Your task to perform on an android device: check google app version Image 0: 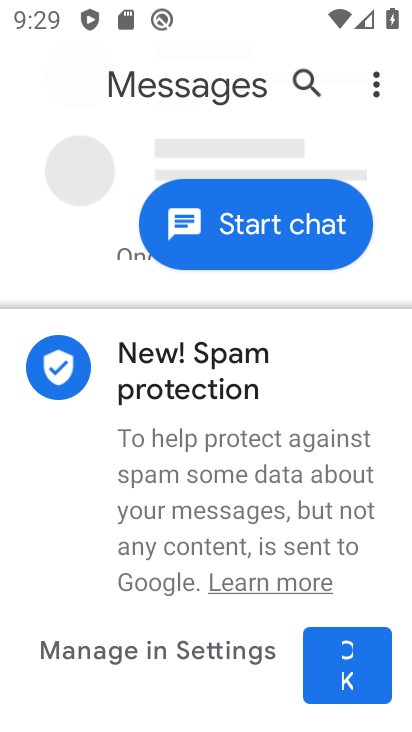
Step 0: press home button
Your task to perform on an android device: check google app version Image 1: 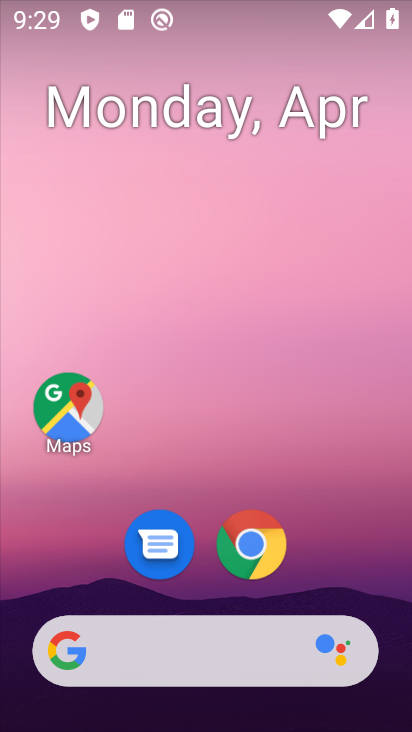
Step 1: drag from (391, 591) to (340, 174)
Your task to perform on an android device: check google app version Image 2: 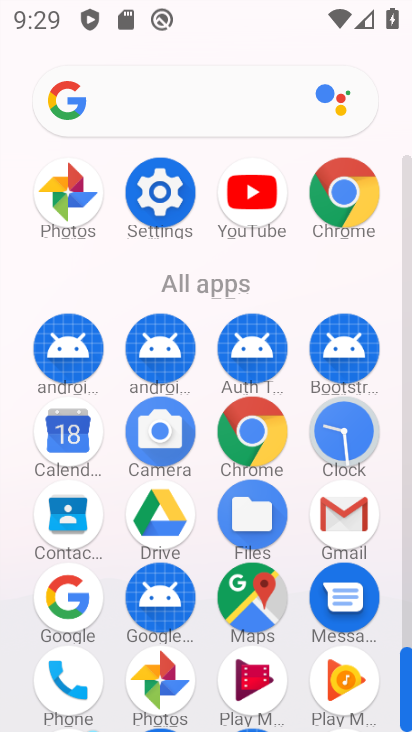
Step 2: click (342, 187)
Your task to perform on an android device: check google app version Image 3: 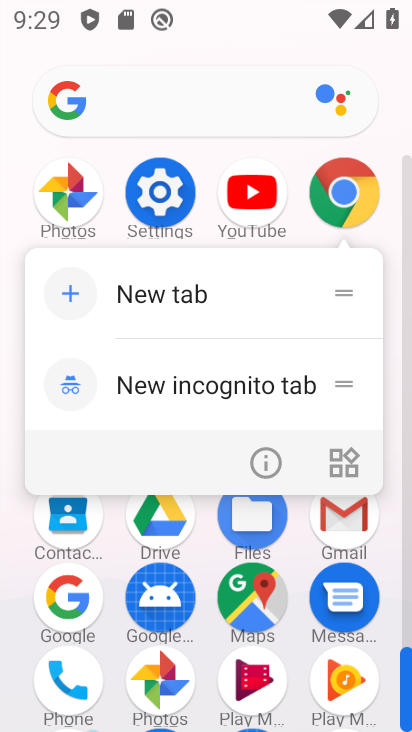
Step 3: click (269, 475)
Your task to perform on an android device: check google app version Image 4: 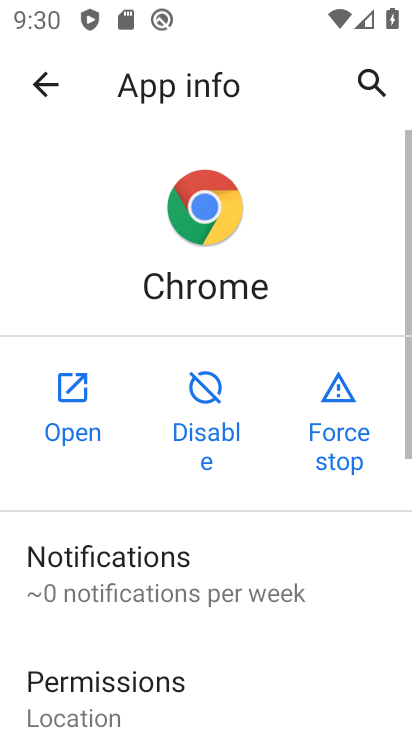
Step 4: drag from (313, 649) to (286, 134)
Your task to perform on an android device: check google app version Image 5: 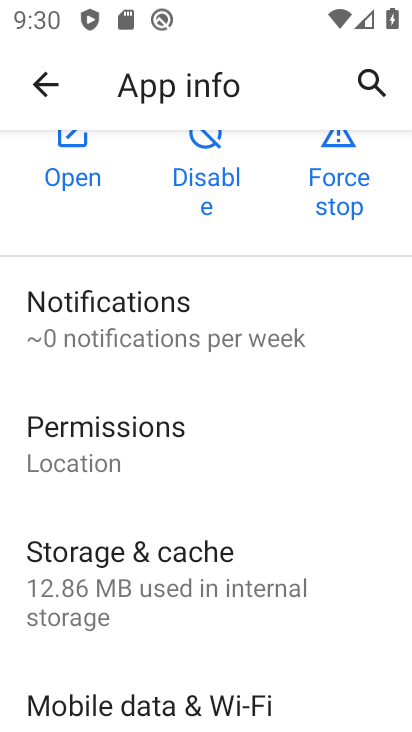
Step 5: drag from (357, 481) to (270, 92)
Your task to perform on an android device: check google app version Image 6: 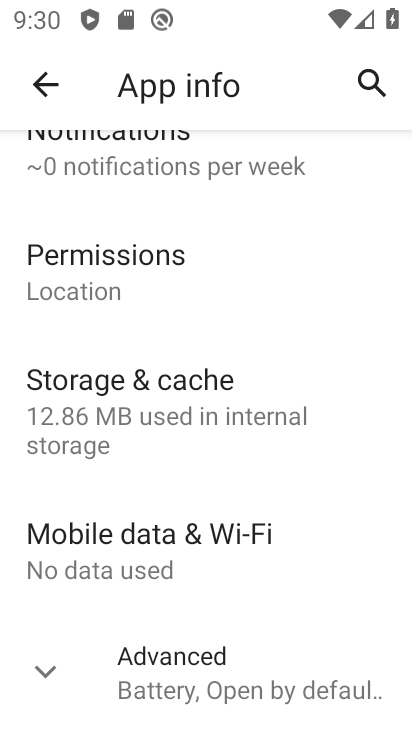
Step 6: click (259, 673)
Your task to perform on an android device: check google app version Image 7: 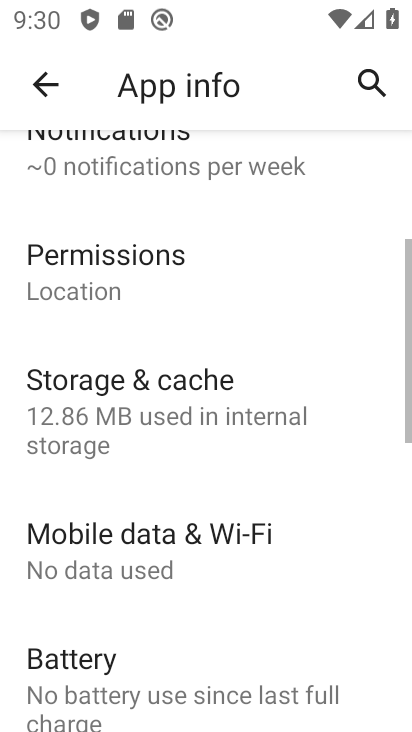
Step 7: task complete